Your task to perform on an android device: Open the web browser Image 0: 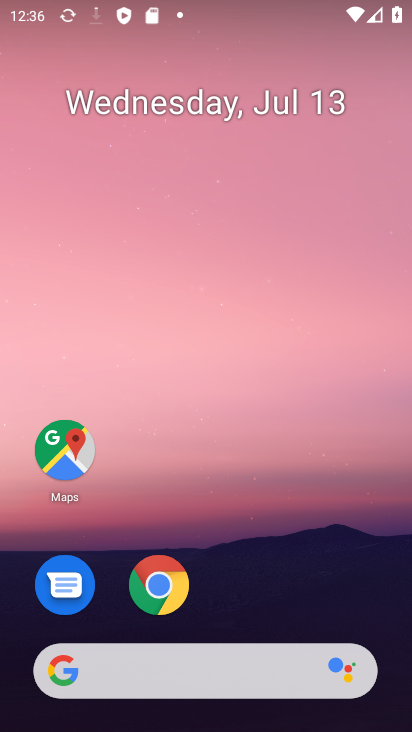
Step 0: click (155, 590)
Your task to perform on an android device: Open the web browser Image 1: 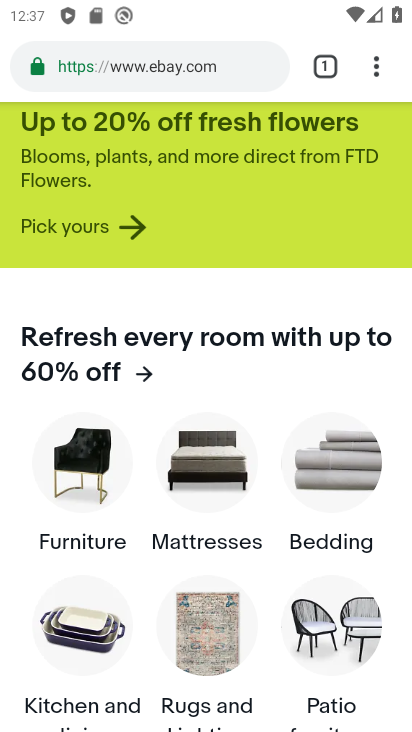
Step 1: task complete